Your task to perform on an android device: Check the weather Image 0: 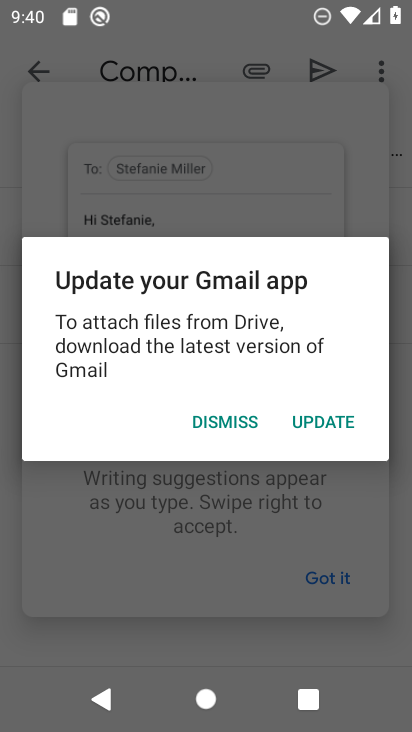
Step 0: press home button
Your task to perform on an android device: Check the weather Image 1: 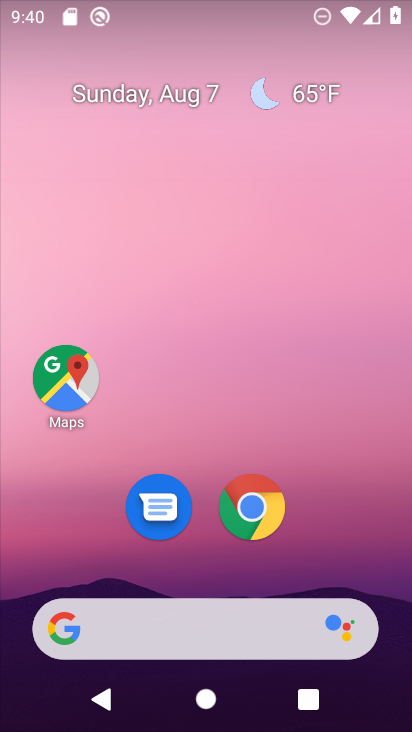
Step 1: click (339, 489)
Your task to perform on an android device: Check the weather Image 2: 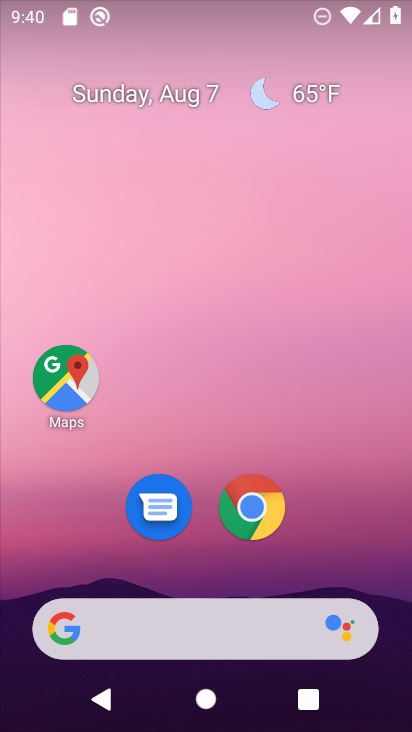
Step 2: click (293, 103)
Your task to perform on an android device: Check the weather Image 3: 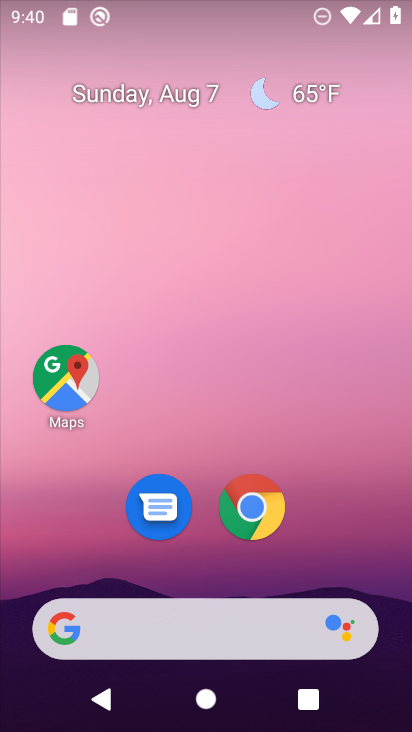
Step 3: click (306, 91)
Your task to perform on an android device: Check the weather Image 4: 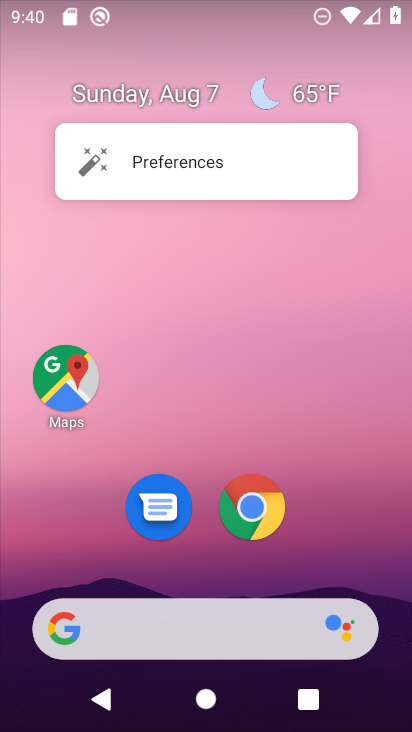
Step 4: click (324, 95)
Your task to perform on an android device: Check the weather Image 5: 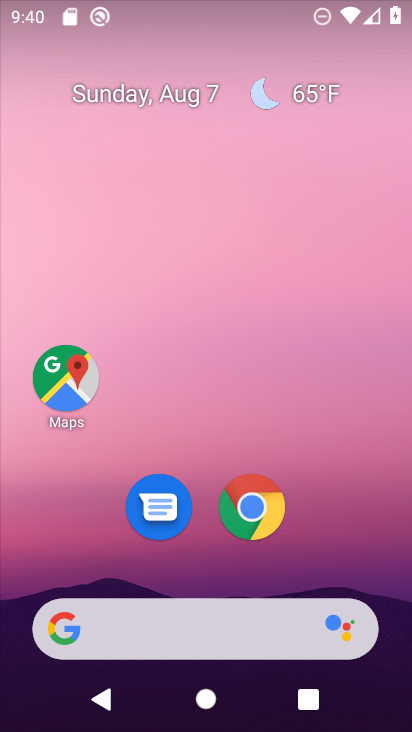
Step 5: click (314, 90)
Your task to perform on an android device: Check the weather Image 6: 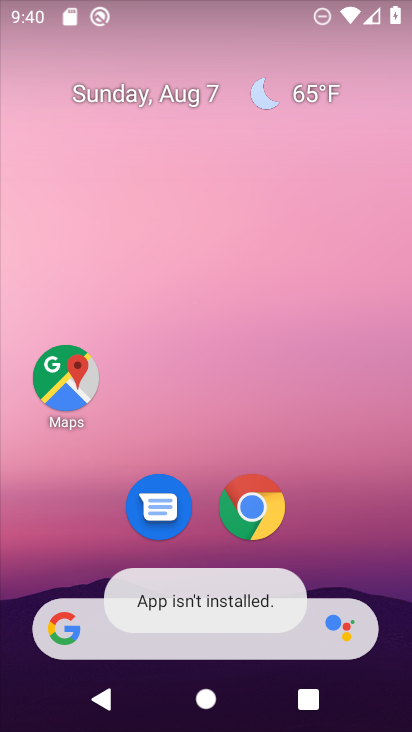
Step 6: click (314, 90)
Your task to perform on an android device: Check the weather Image 7: 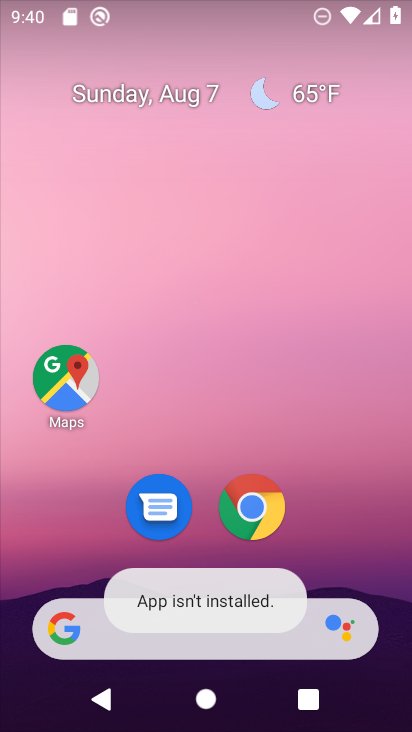
Step 7: drag from (347, 529) to (346, 112)
Your task to perform on an android device: Check the weather Image 8: 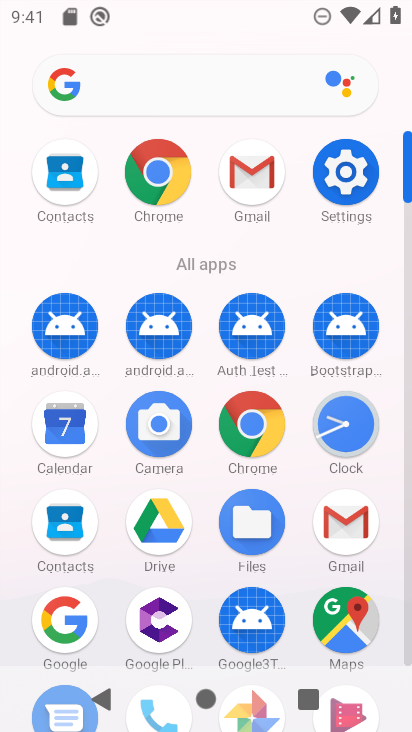
Step 8: click (252, 425)
Your task to perform on an android device: Check the weather Image 9: 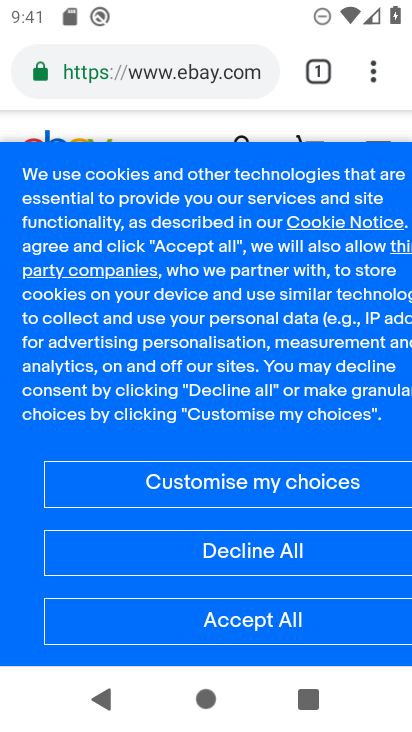
Step 9: click (183, 76)
Your task to perform on an android device: Check the weather Image 10: 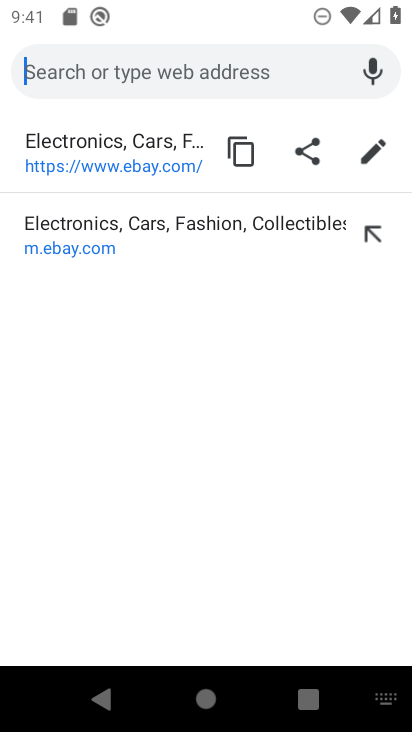
Step 10: type "weather"
Your task to perform on an android device: Check the weather Image 11: 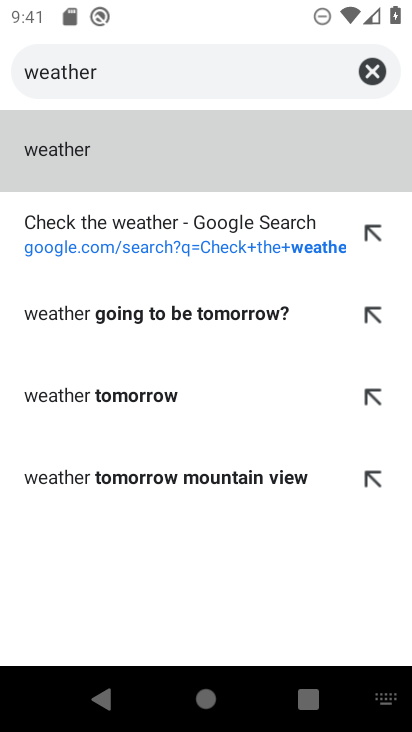
Step 11: click (107, 164)
Your task to perform on an android device: Check the weather Image 12: 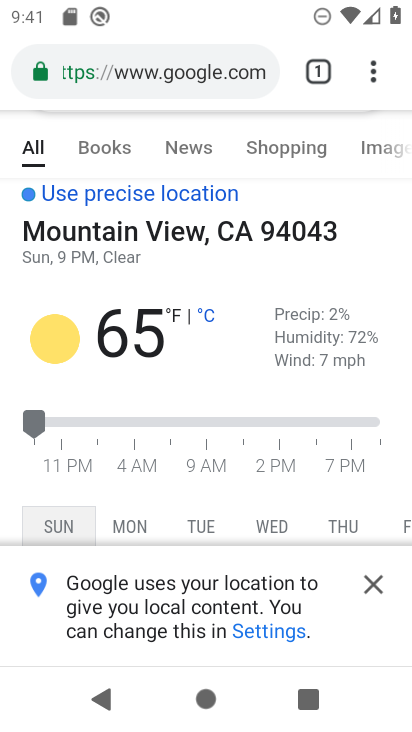
Step 12: task complete